Your task to perform on an android device: change your default location settings in chrome Image 0: 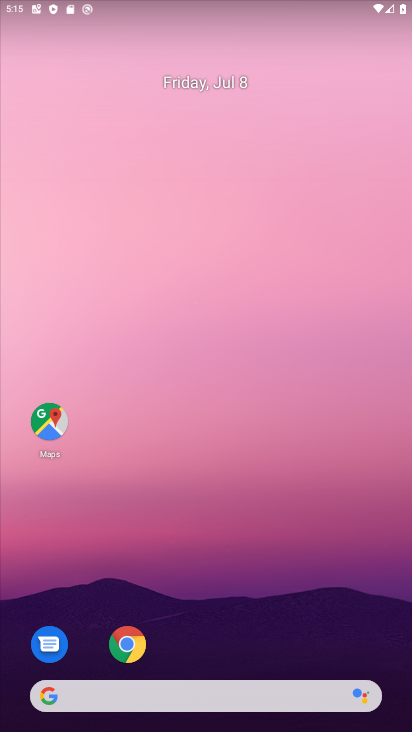
Step 0: click (135, 651)
Your task to perform on an android device: change your default location settings in chrome Image 1: 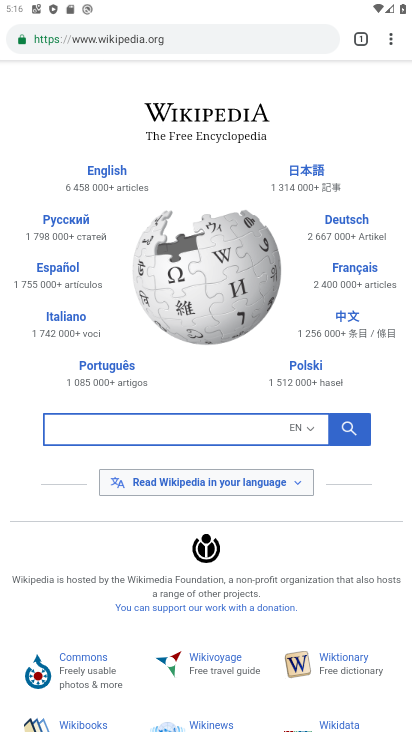
Step 1: click (391, 37)
Your task to perform on an android device: change your default location settings in chrome Image 2: 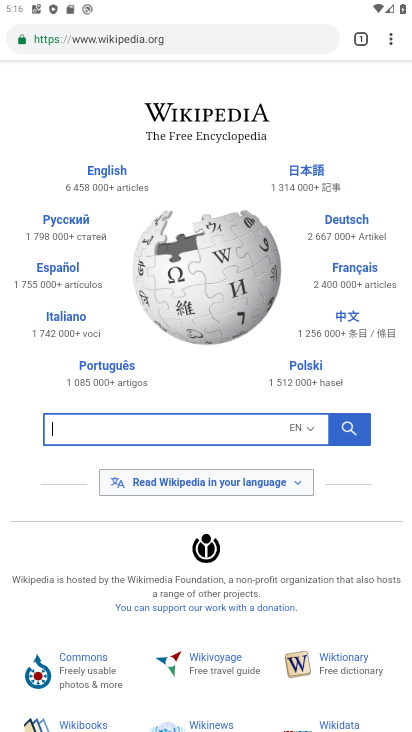
Step 2: click (391, 37)
Your task to perform on an android device: change your default location settings in chrome Image 3: 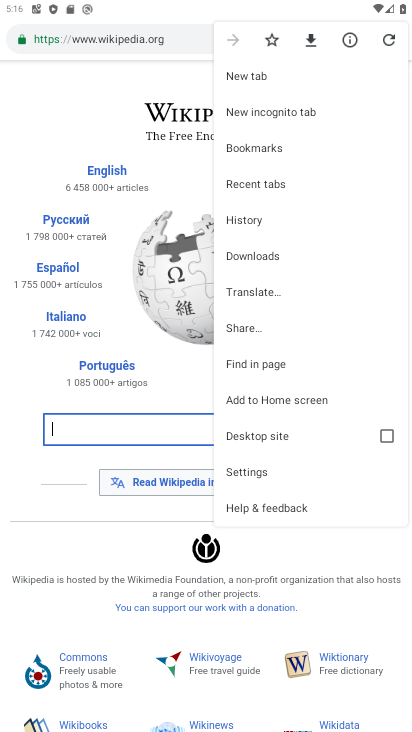
Step 3: click (264, 474)
Your task to perform on an android device: change your default location settings in chrome Image 4: 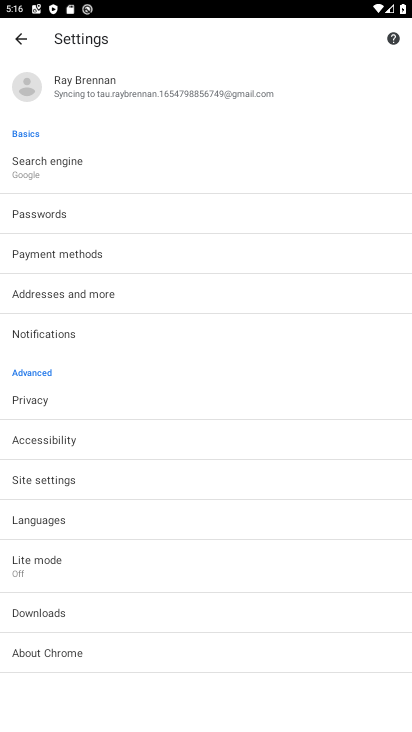
Step 4: click (51, 477)
Your task to perform on an android device: change your default location settings in chrome Image 5: 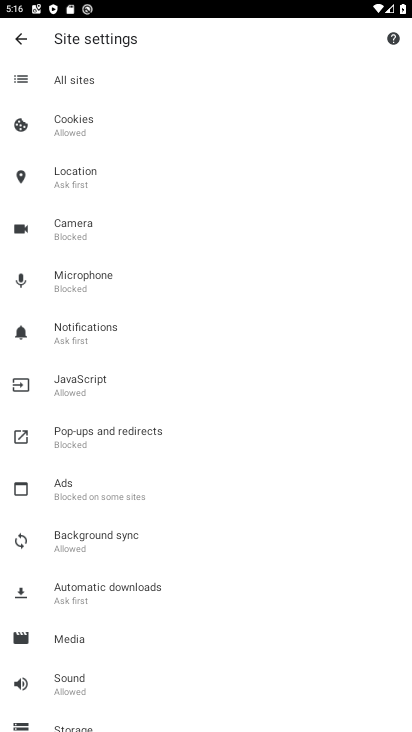
Step 5: click (99, 190)
Your task to perform on an android device: change your default location settings in chrome Image 6: 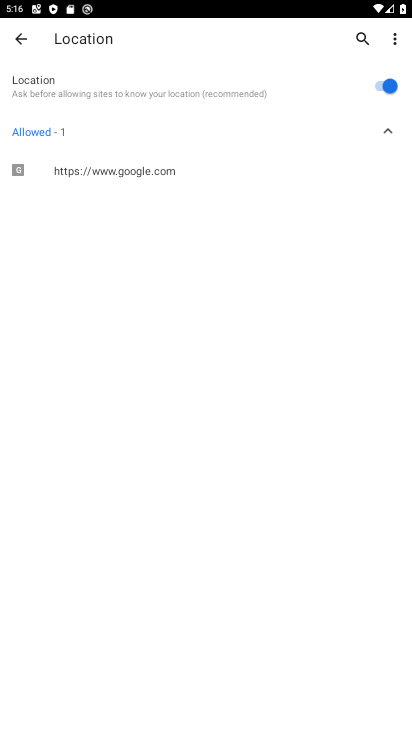
Step 6: click (384, 95)
Your task to perform on an android device: change your default location settings in chrome Image 7: 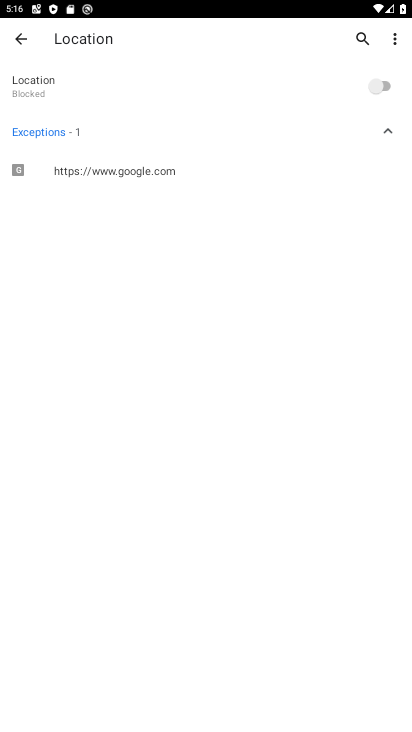
Step 7: click (22, 47)
Your task to perform on an android device: change your default location settings in chrome Image 8: 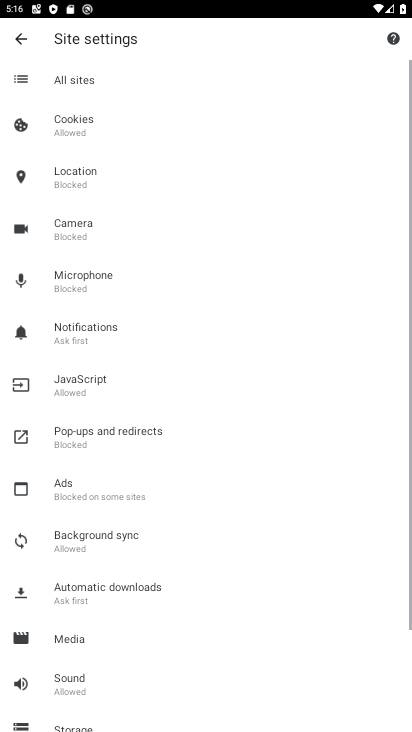
Step 8: click (15, 40)
Your task to perform on an android device: change your default location settings in chrome Image 9: 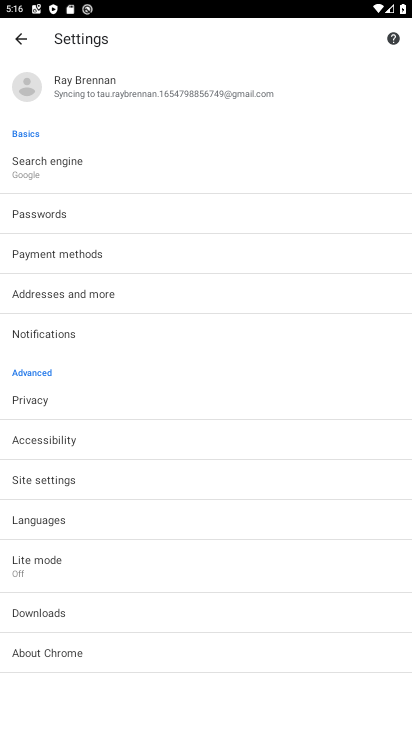
Step 9: click (157, 428)
Your task to perform on an android device: change your default location settings in chrome Image 10: 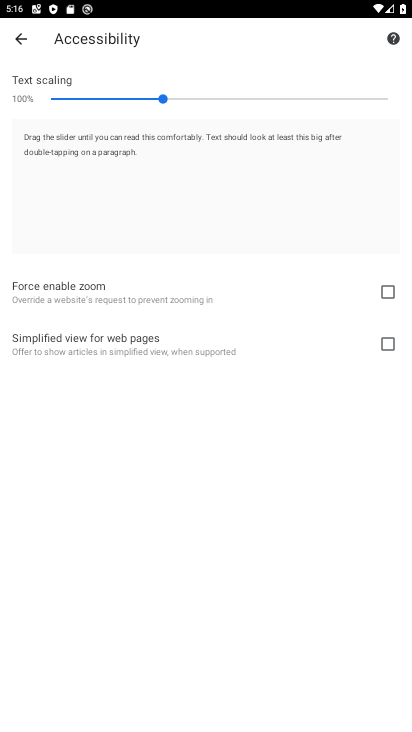
Step 10: click (10, 39)
Your task to perform on an android device: change your default location settings in chrome Image 11: 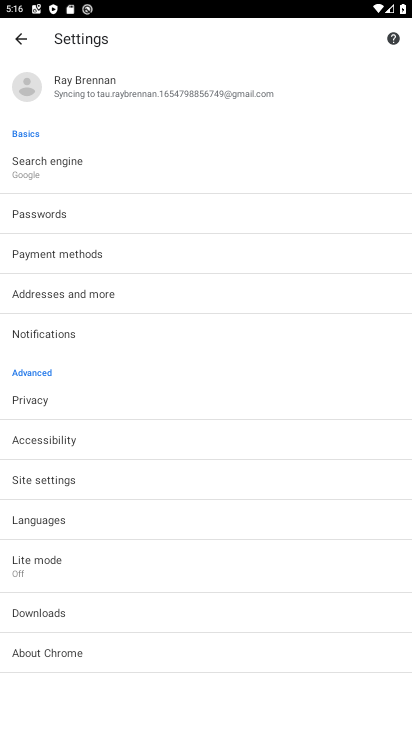
Step 11: click (148, 409)
Your task to perform on an android device: change your default location settings in chrome Image 12: 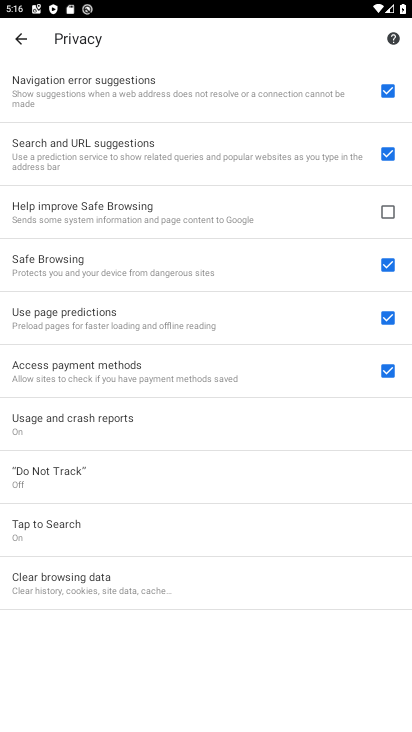
Step 12: click (13, 42)
Your task to perform on an android device: change your default location settings in chrome Image 13: 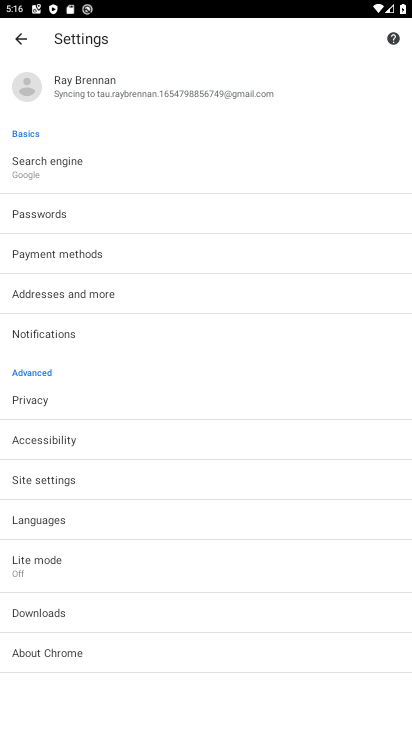
Step 13: task complete